Your task to perform on an android device: Add "acer predator" to the cart on walmart.com, then select checkout. Image 0: 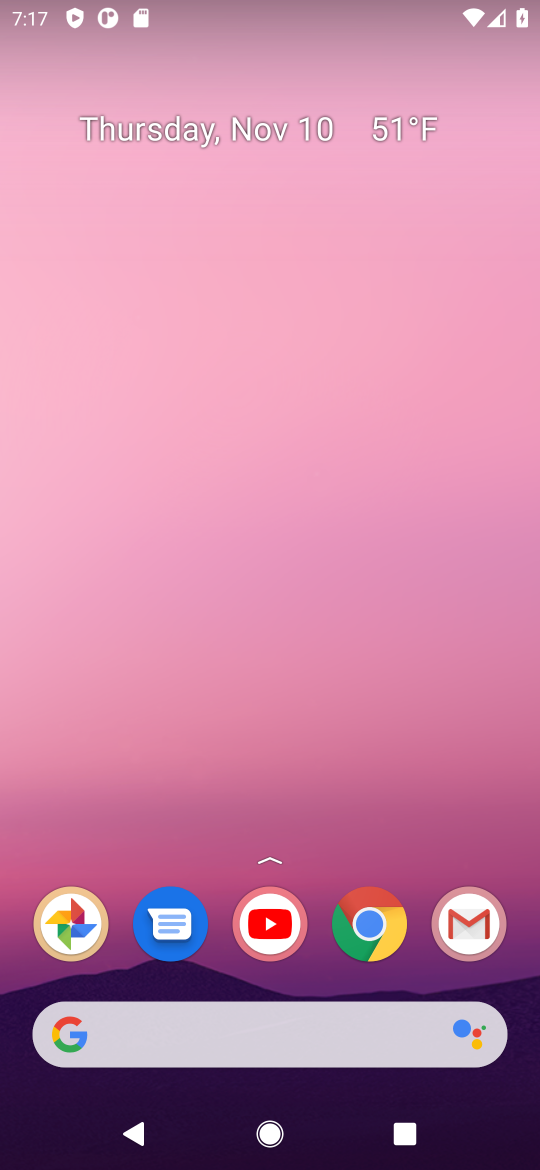
Step 0: click (381, 920)
Your task to perform on an android device: Add "acer predator" to the cart on walmart.com, then select checkout. Image 1: 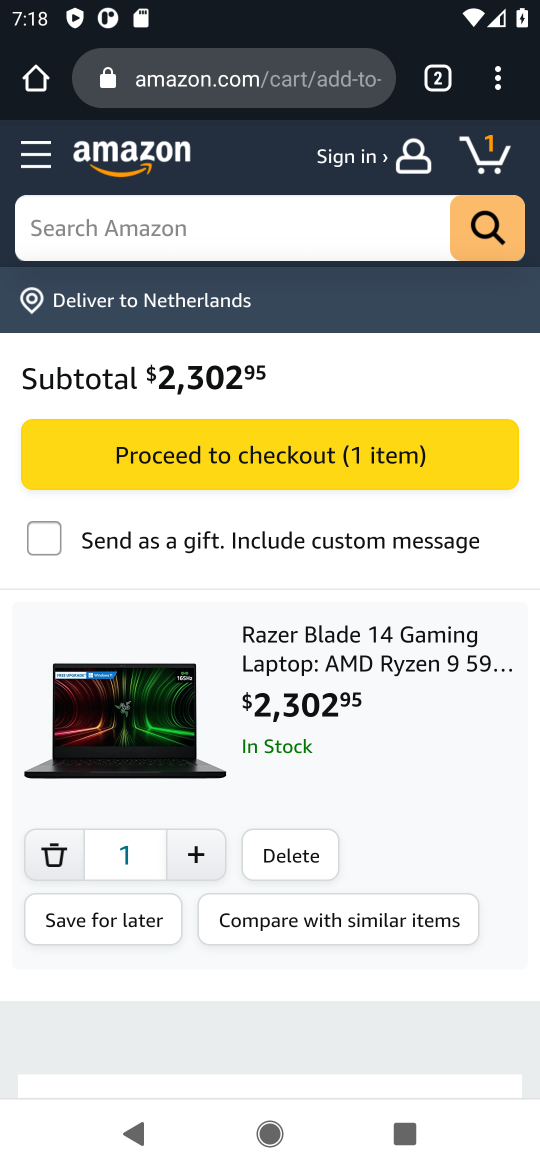
Step 1: click (202, 89)
Your task to perform on an android device: Add "acer predator" to the cart on walmart.com, then select checkout. Image 2: 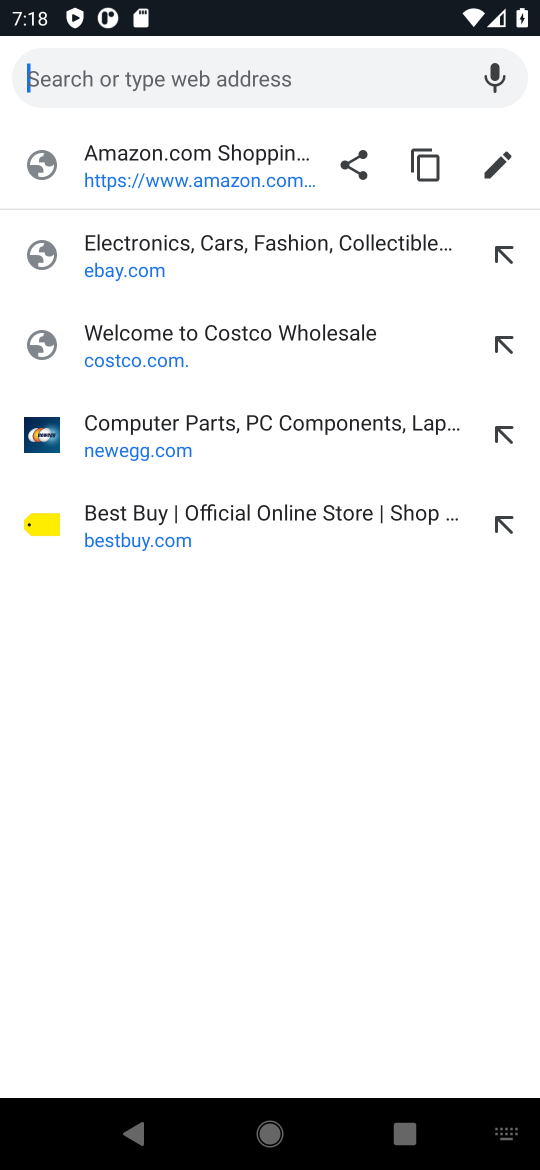
Step 2: type "walmart.com"
Your task to perform on an android device: Add "acer predator" to the cart on walmart.com, then select checkout. Image 3: 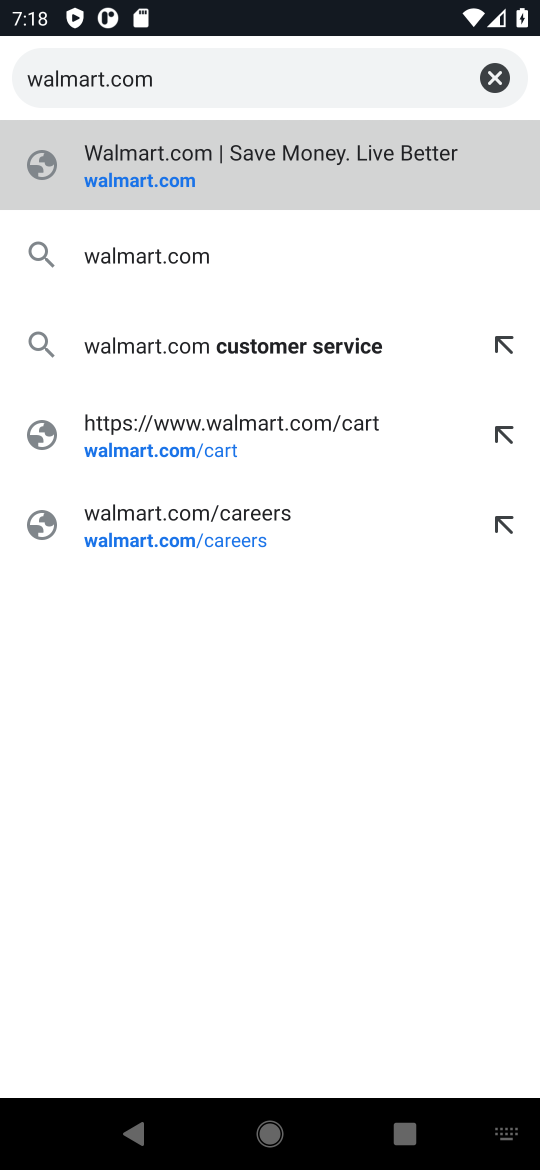
Step 3: click (150, 180)
Your task to perform on an android device: Add "acer predator" to the cart on walmart.com, then select checkout. Image 4: 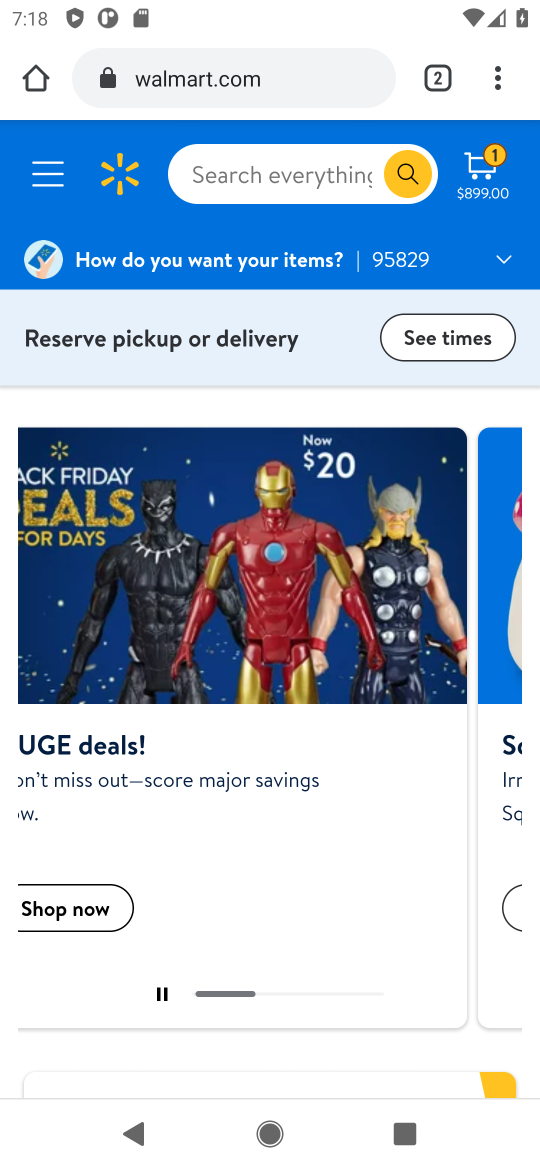
Step 4: click (257, 174)
Your task to perform on an android device: Add "acer predator" to the cart on walmart.com, then select checkout. Image 5: 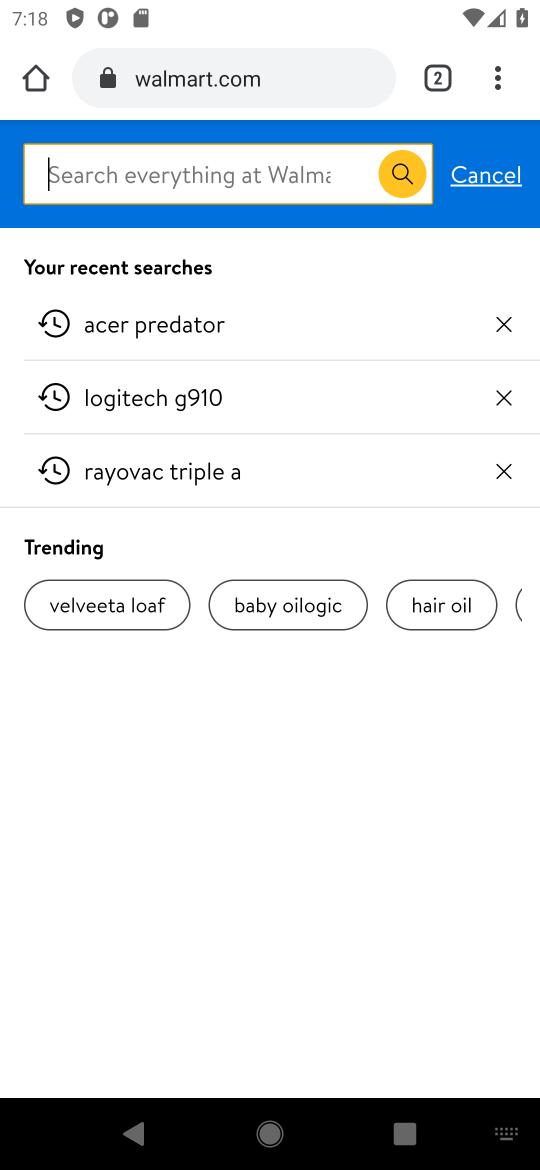
Step 5: type "acer predator"
Your task to perform on an android device: Add "acer predator" to the cart on walmart.com, then select checkout. Image 6: 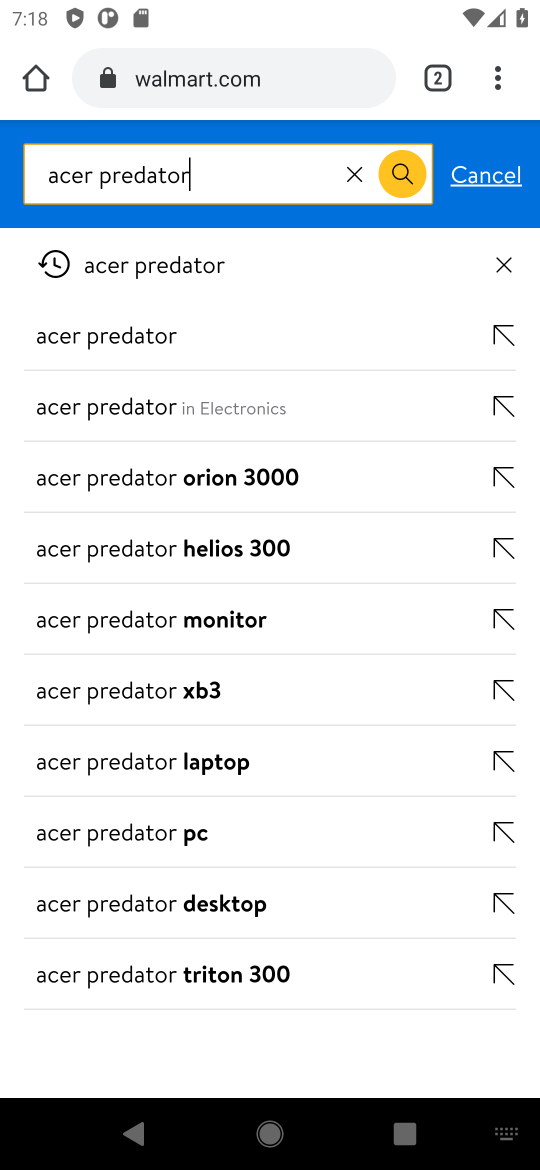
Step 6: click (172, 263)
Your task to perform on an android device: Add "acer predator" to the cart on walmart.com, then select checkout. Image 7: 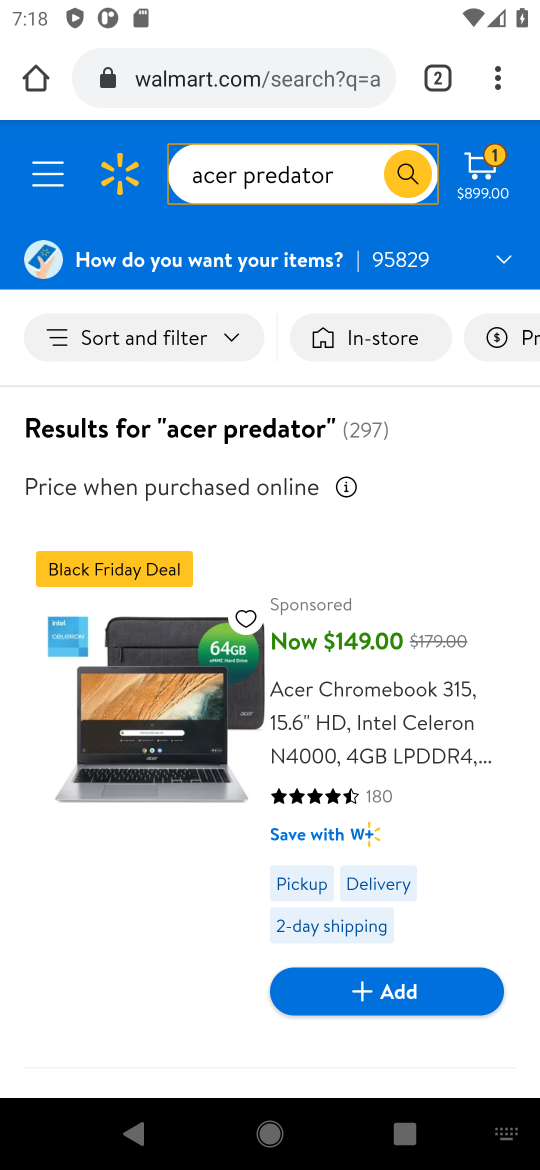
Step 7: drag from (92, 797) to (65, 360)
Your task to perform on an android device: Add "acer predator" to the cart on walmart.com, then select checkout. Image 8: 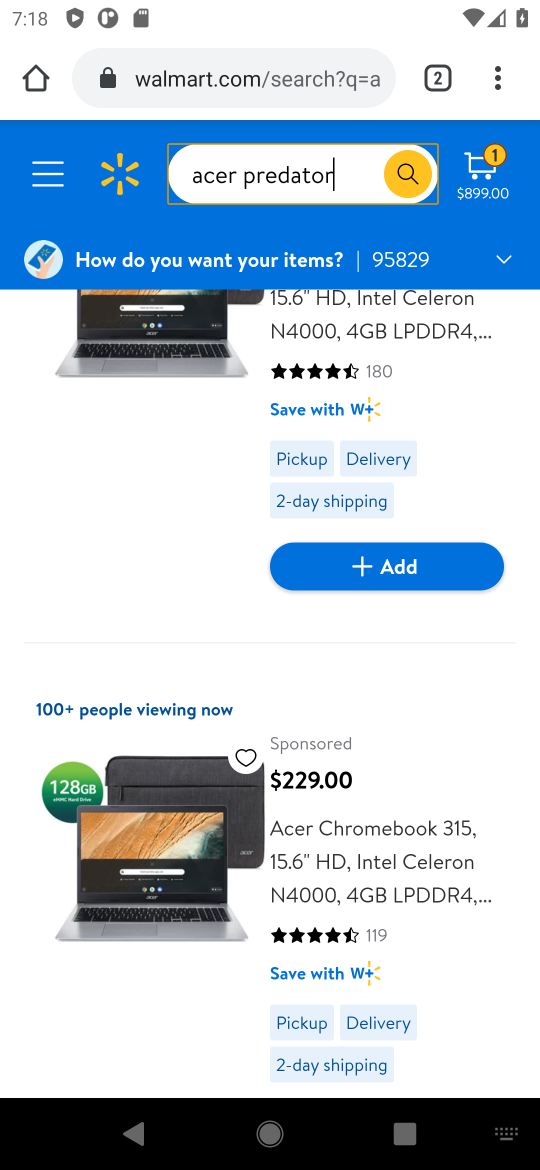
Step 8: drag from (154, 865) to (149, 377)
Your task to perform on an android device: Add "acer predator" to the cart on walmart.com, then select checkout. Image 9: 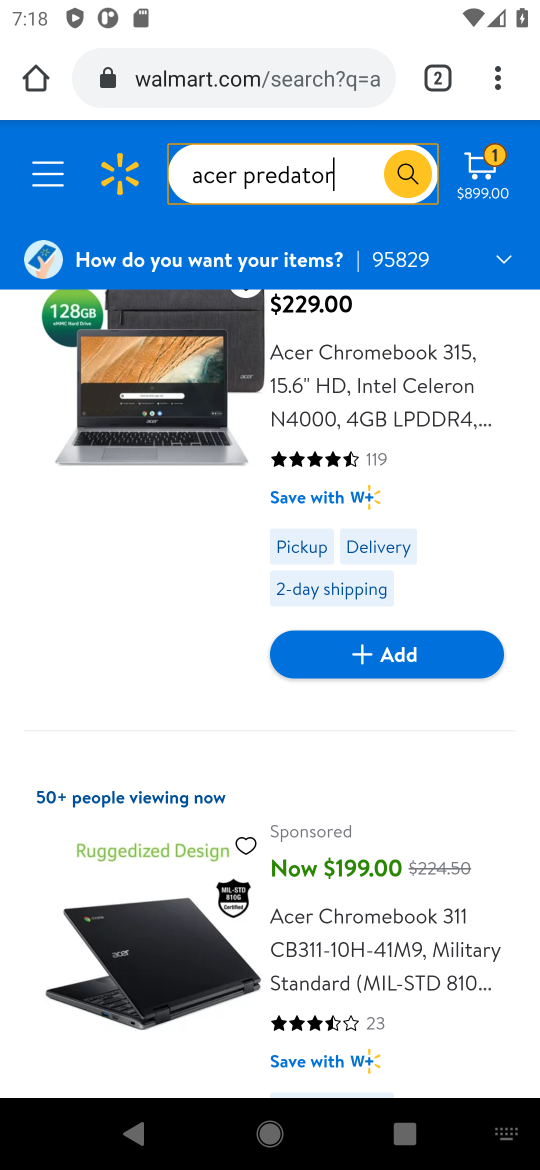
Step 9: drag from (123, 884) to (129, 438)
Your task to perform on an android device: Add "acer predator" to the cart on walmart.com, then select checkout. Image 10: 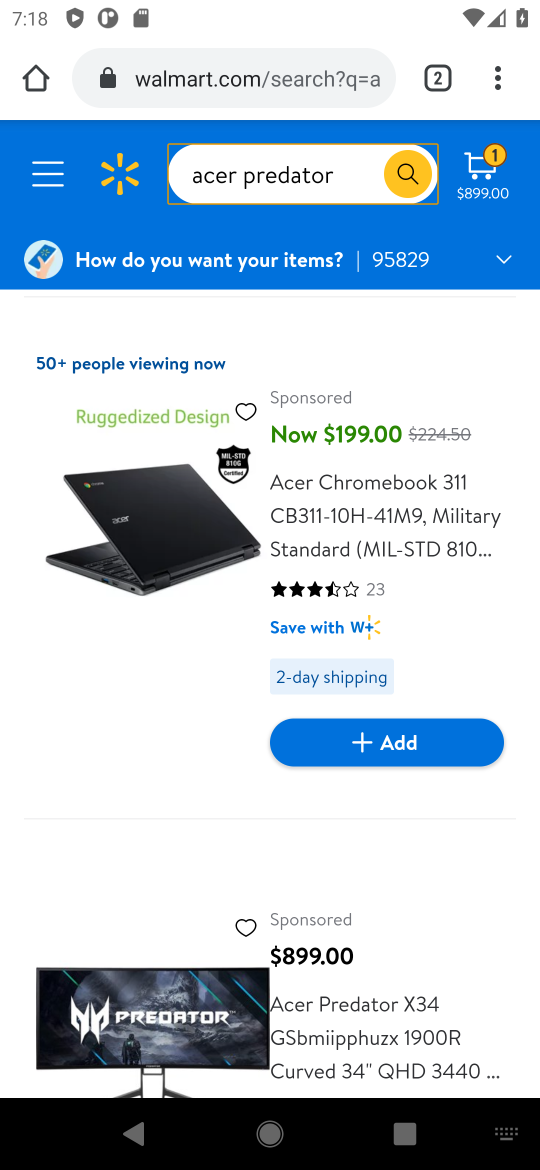
Step 10: drag from (120, 850) to (89, 620)
Your task to perform on an android device: Add "acer predator" to the cart on walmart.com, then select checkout. Image 11: 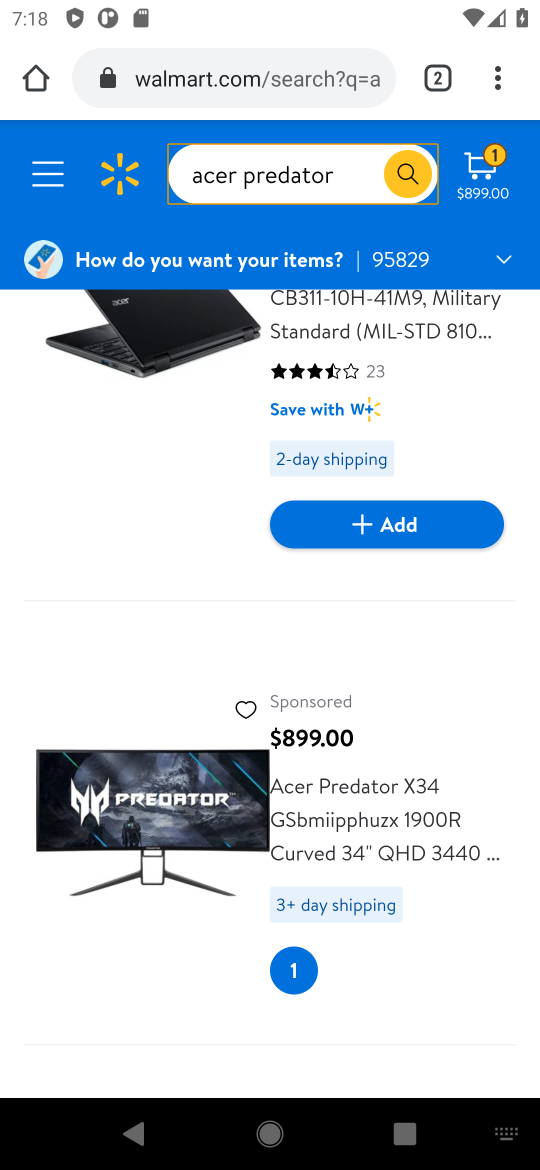
Step 11: drag from (152, 889) to (88, 550)
Your task to perform on an android device: Add "acer predator" to the cart on walmart.com, then select checkout. Image 12: 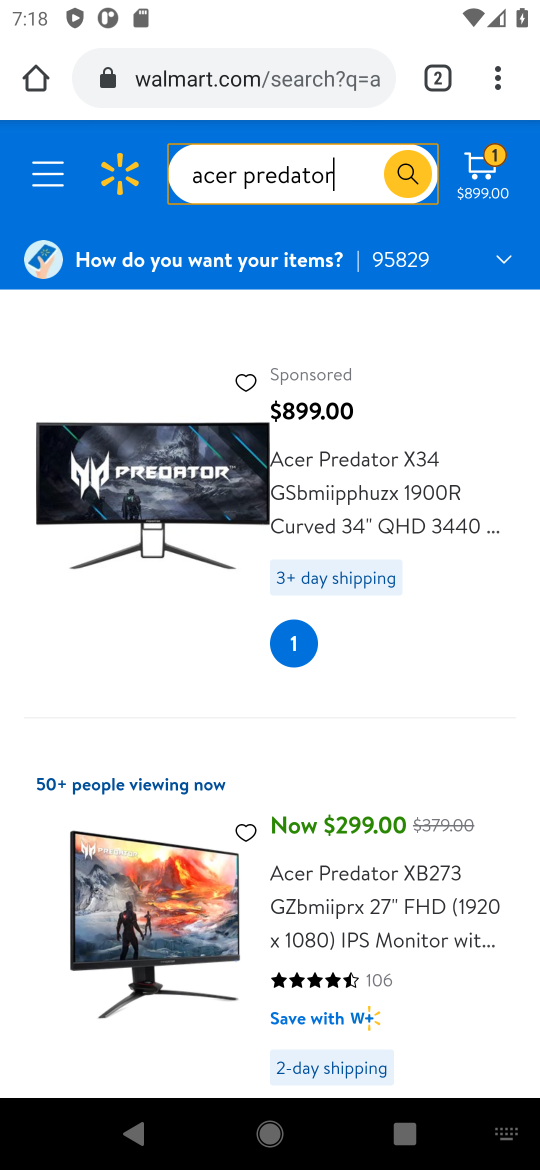
Step 12: click (288, 500)
Your task to perform on an android device: Add "acer predator" to the cart on walmart.com, then select checkout. Image 13: 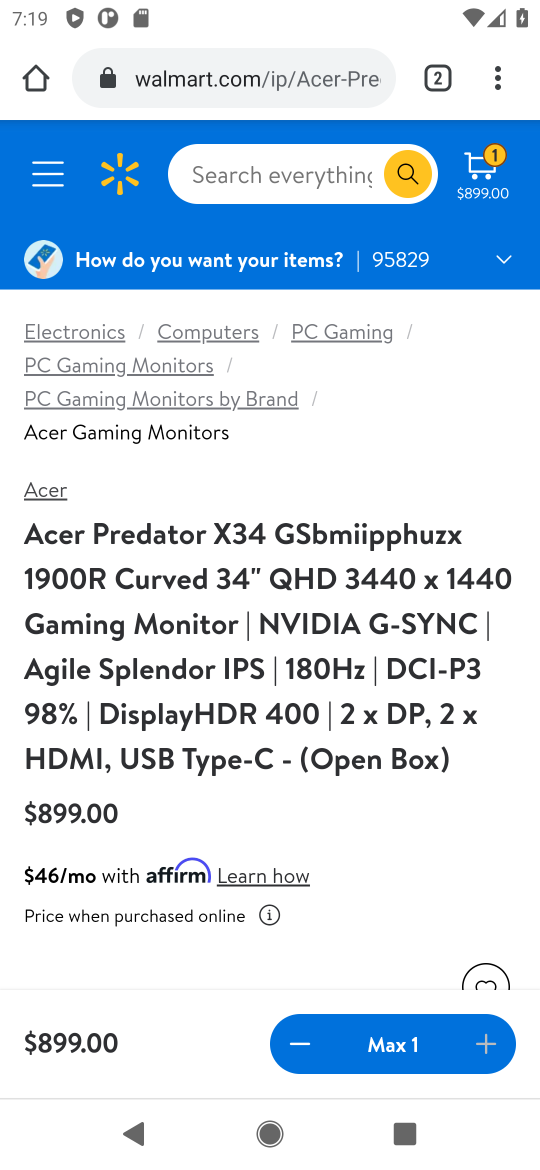
Step 13: drag from (310, 895) to (280, 749)
Your task to perform on an android device: Add "acer predator" to the cart on walmart.com, then select checkout. Image 14: 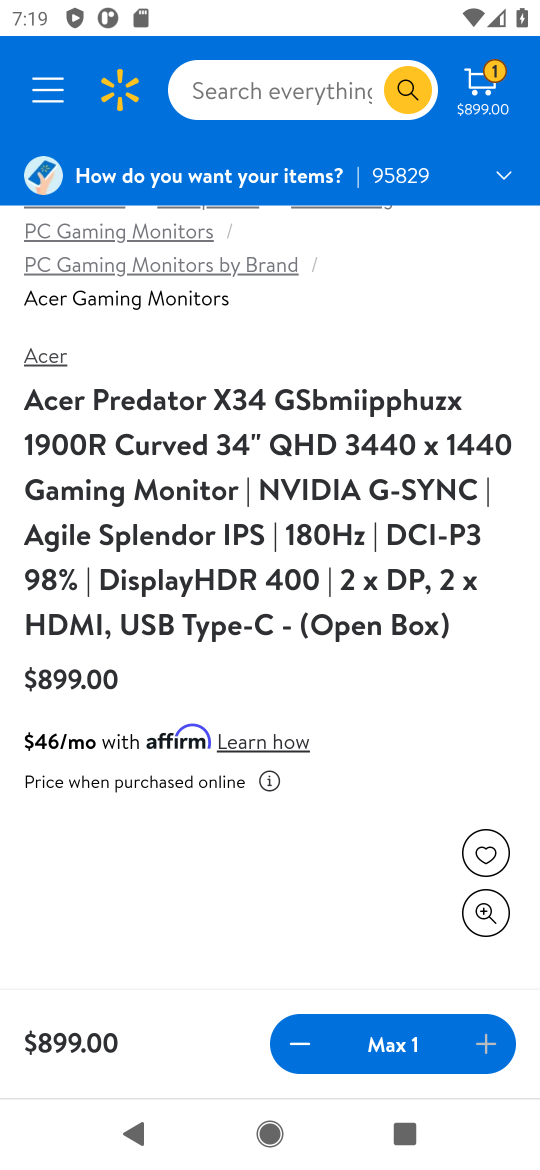
Step 14: click (483, 1054)
Your task to perform on an android device: Add "acer predator" to the cart on walmart.com, then select checkout. Image 15: 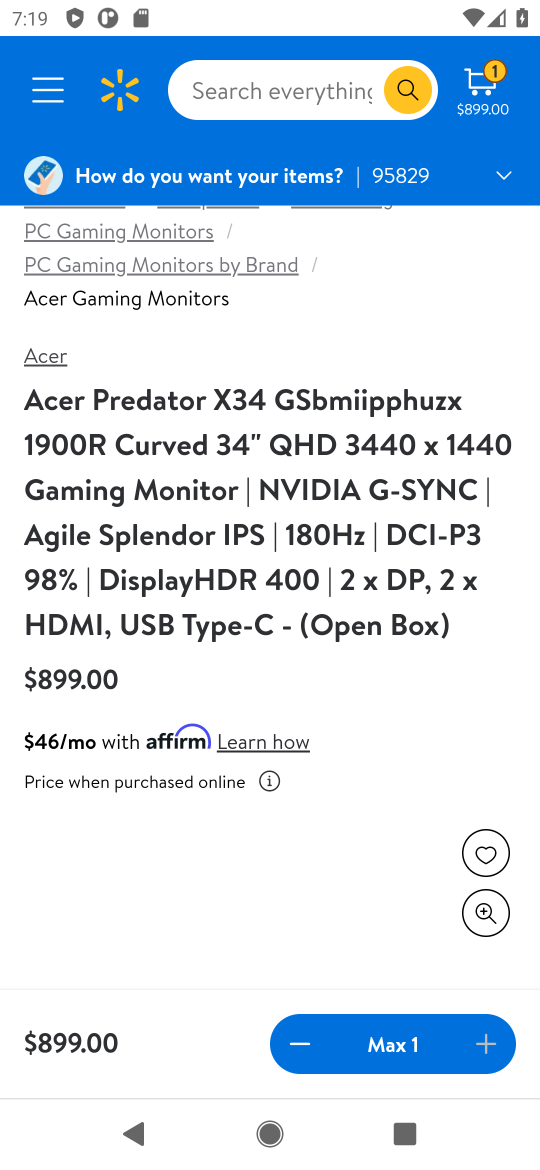
Step 15: click (477, 95)
Your task to perform on an android device: Add "acer predator" to the cart on walmart.com, then select checkout. Image 16: 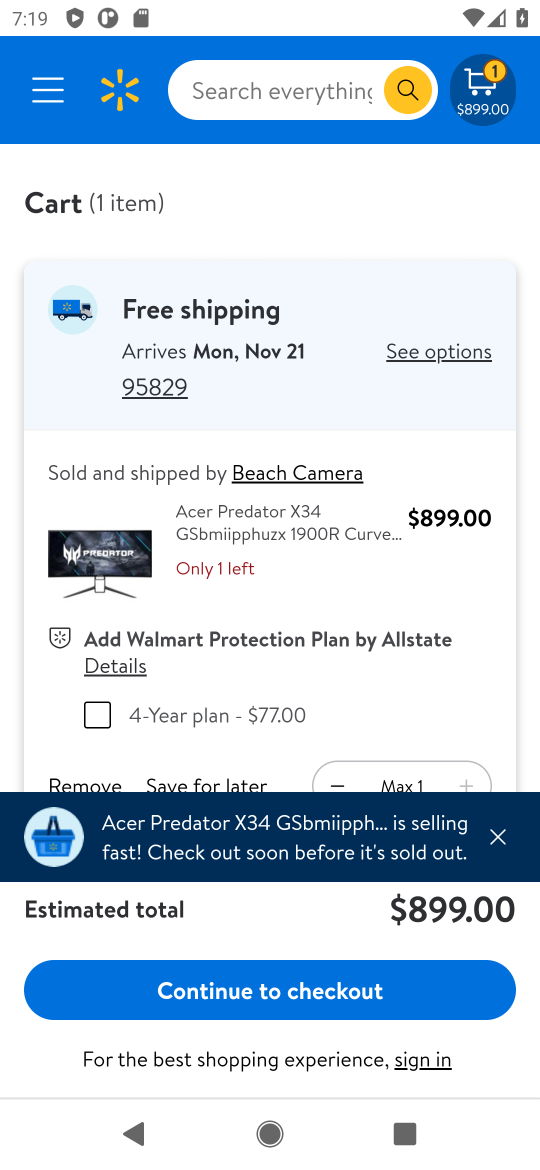
Step 16: click (318, 1003)
Your task to perform on an android device: Add "acer predator" to the cart on walmart.com, then select checkout. Image 17: 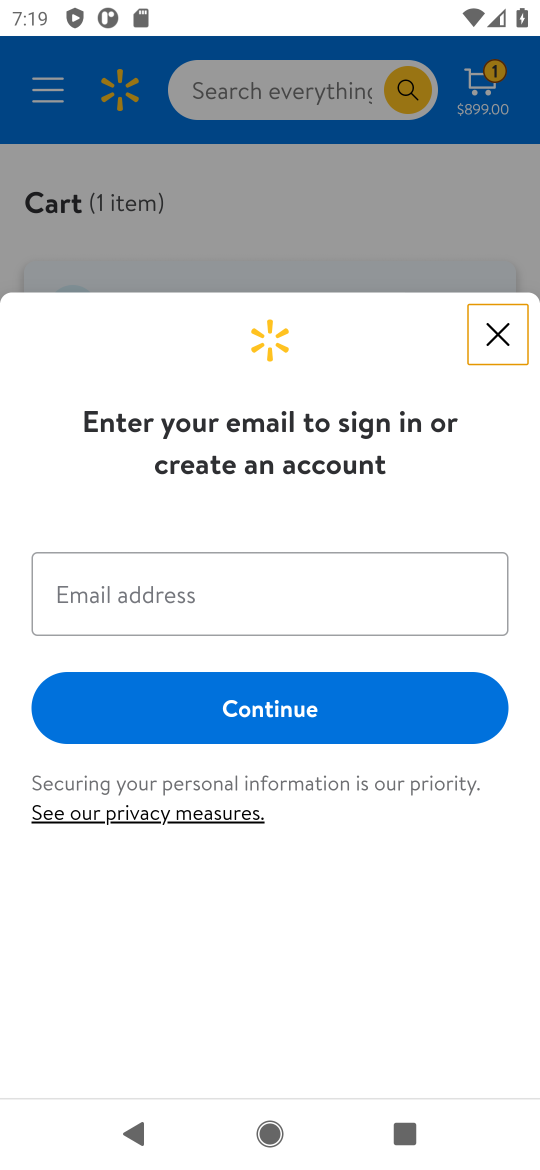
Step 17: task complete